Your task to perform on an android device: Clear the shopping cart on newegg. Add lg ultragear to the cart on newegg Image 0: 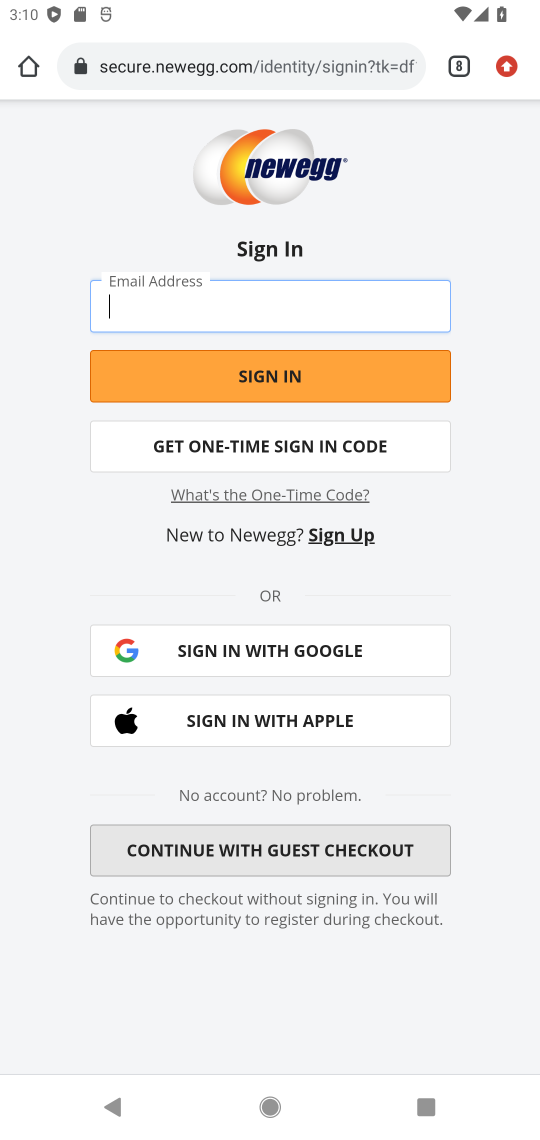
Step 0: click (461, 71)
Your task to perform on an android device: Clear the shopping cart on newegg. Add lg ultragear to the cart on newegg Image 1: 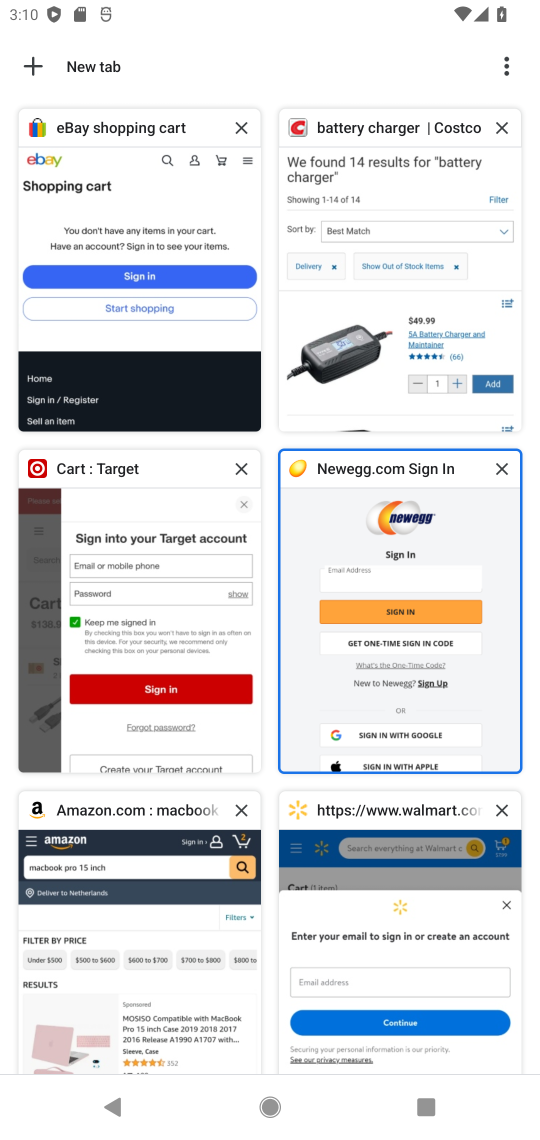
Step 1: click (346, 606)
Your task to perform on an android device: Clear the shopping cart on newegg. Add lg ultragear to the cart on newegg Image 2: 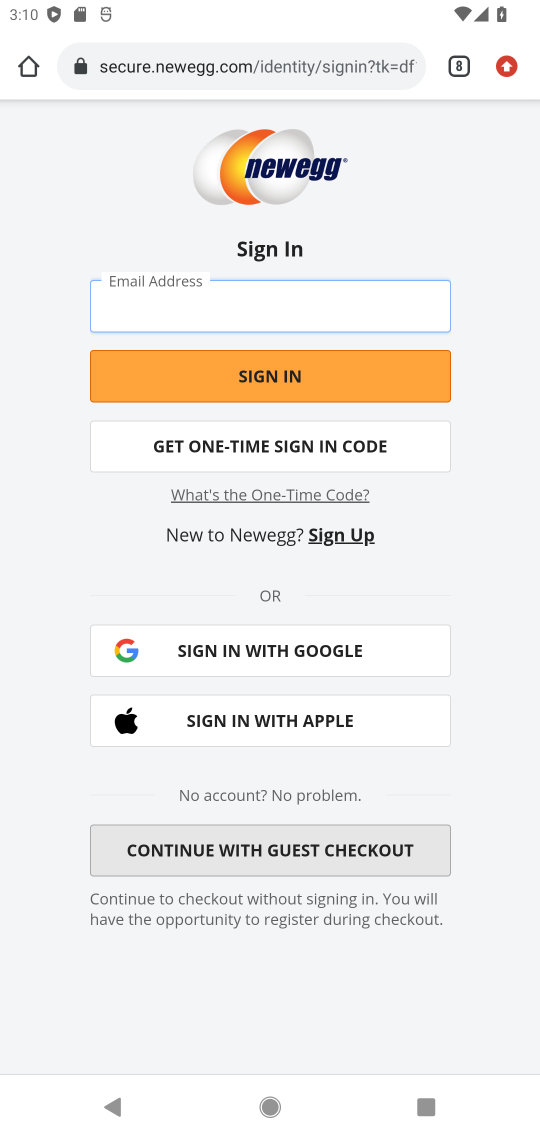
Step 2: press back button
Your task to perform on an android device: Clear the shopping cart on newegg. Add lg ultragear to the cart on newegg Image 3: 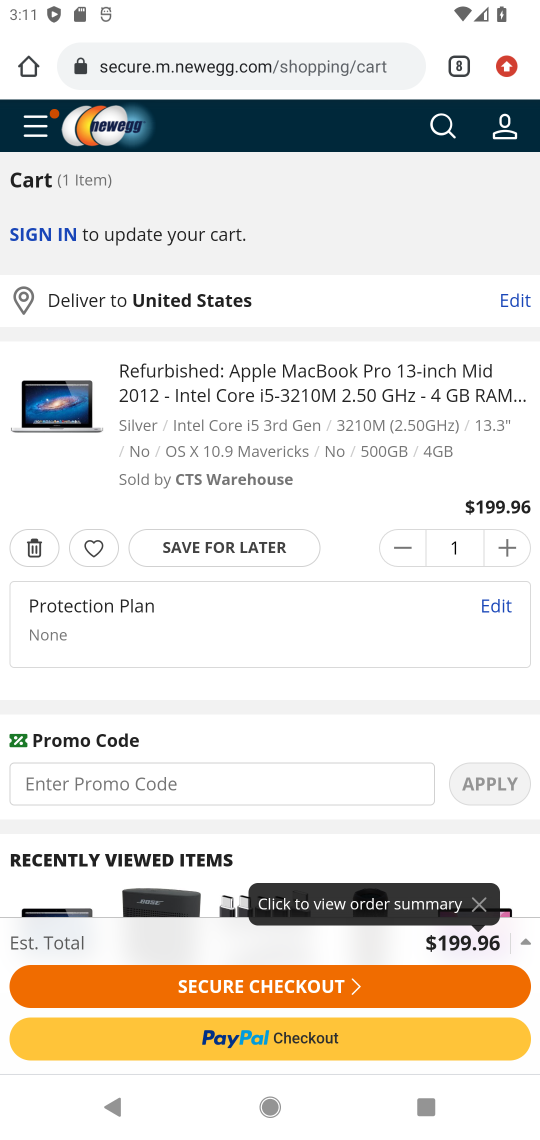
Step 3: click (32, 545)
Your task to perform on an android device: Clear the shopping cart on newegg. Add lg ultragear to the cart on newegg Image 4: 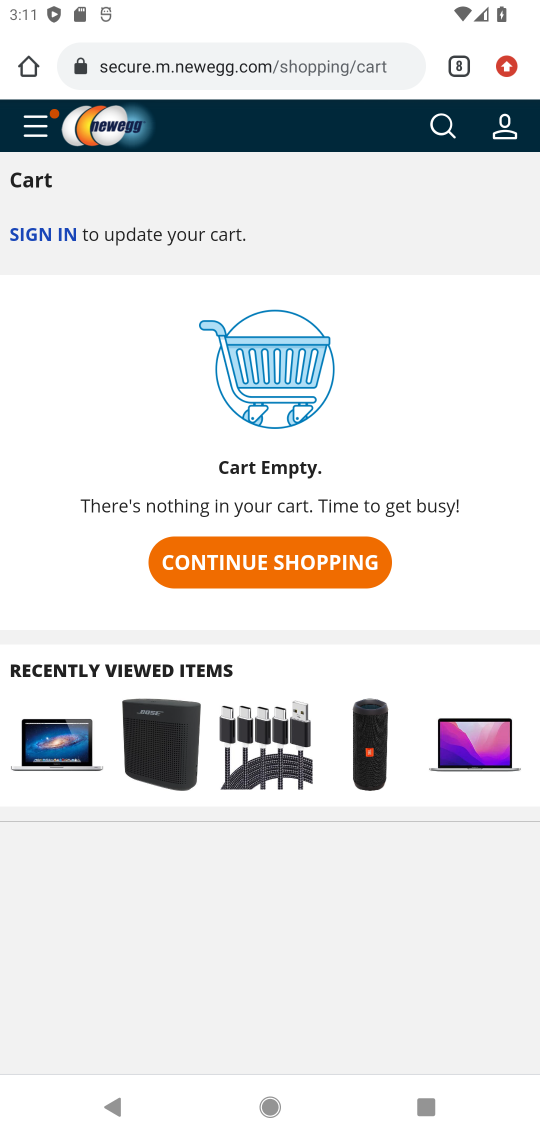
Step 4: click (438, 128)
Your task to perform on an android device: Clear the shopping cart on newegg. Add lg ultragear to the cart on newegg Image 5: 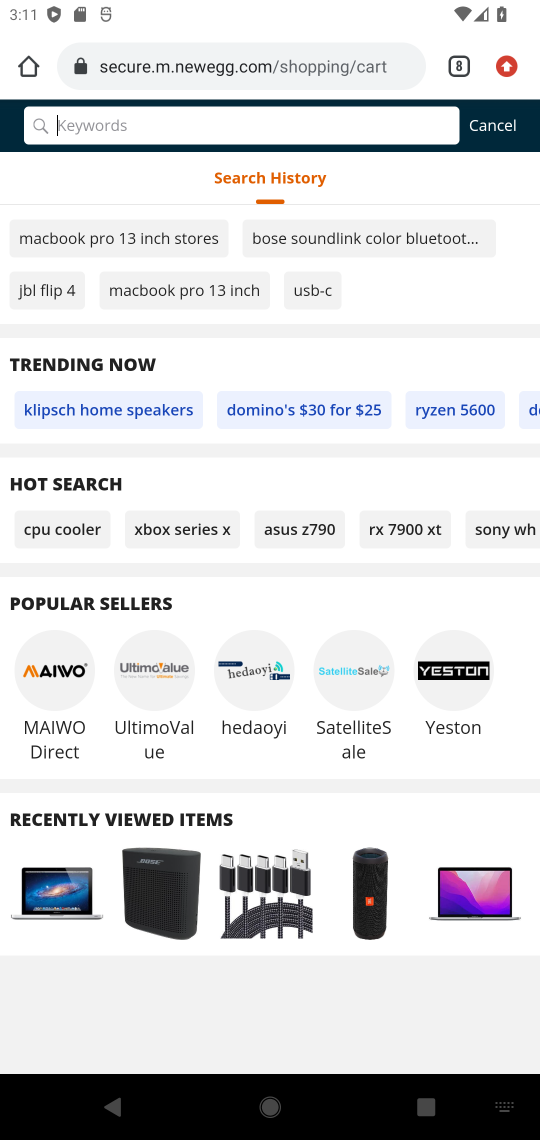
Step 5: type " lg ultragea"
Your task to perform on an android device: Clear the shopping cart on newegg. Add lg ultragear to the cart on newegg Image 6: 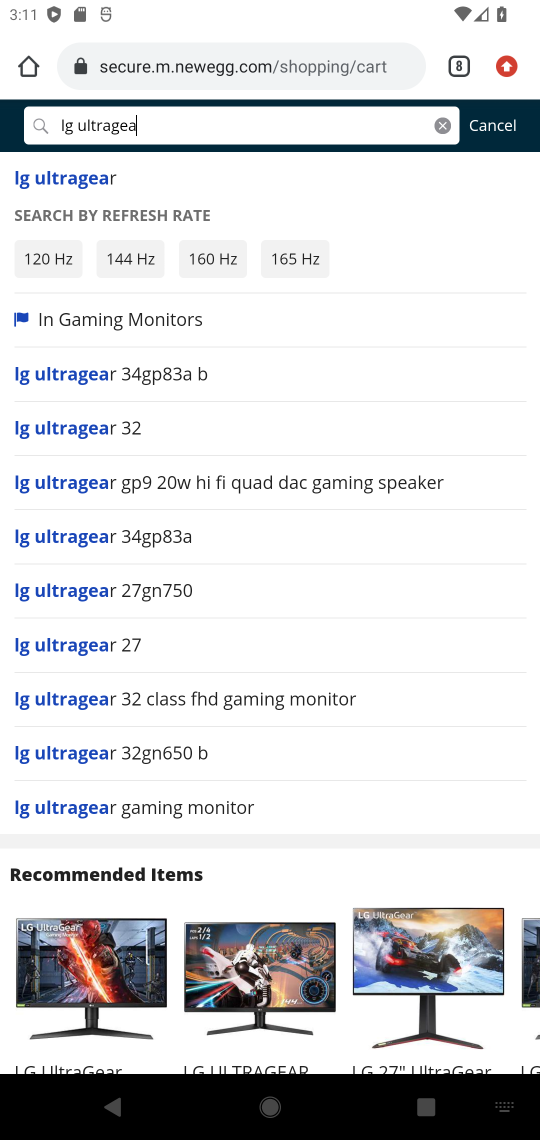
Step 6: click (34, 179)
Your task to perform on an android device: Clear the shopping cart on newegg. Add lg ultragear to the cart on newegg Image 7: 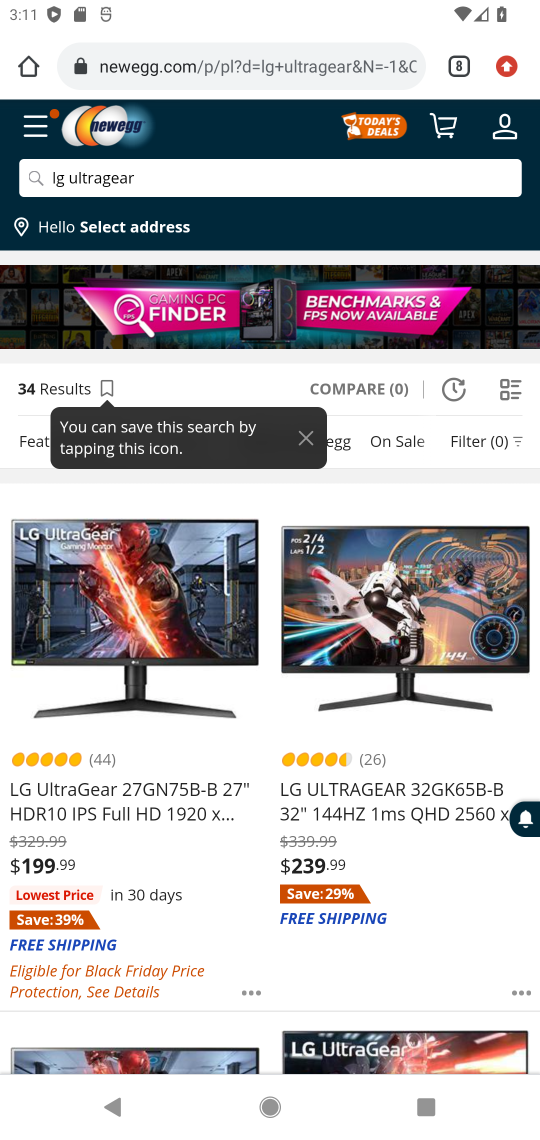
Step 7: click (93, 801)
Your task to perform on an android device: Clear the shopping cart on newegg. Add lg ultragear to the cart on newegg Image 8: 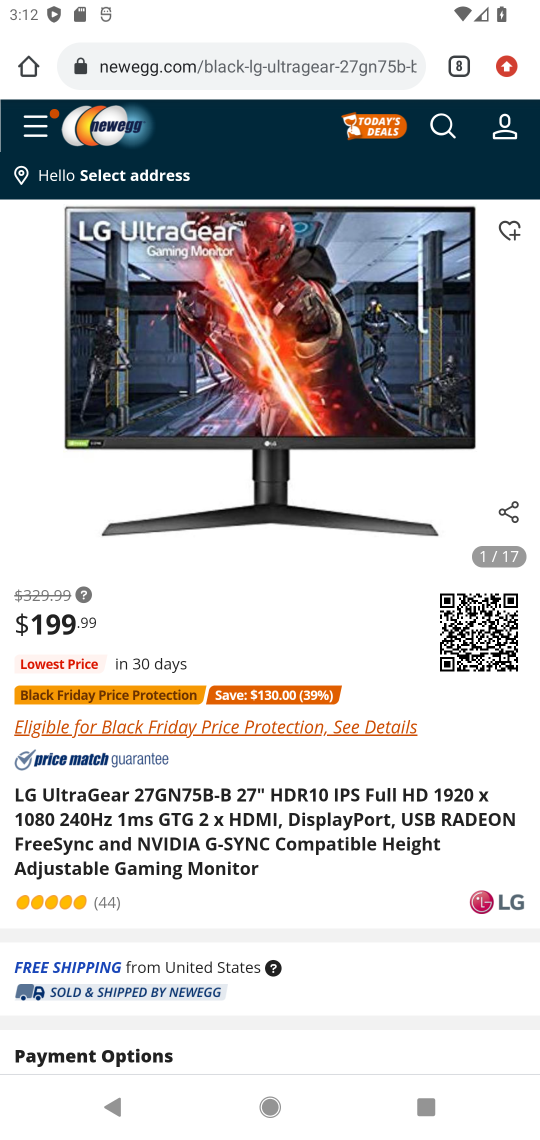
Step 8: click (229, 1039)
Your task to perform on an android device: Clear the shopping cart on newegg. Add lg ultragear to the cart on newegg Image 9: 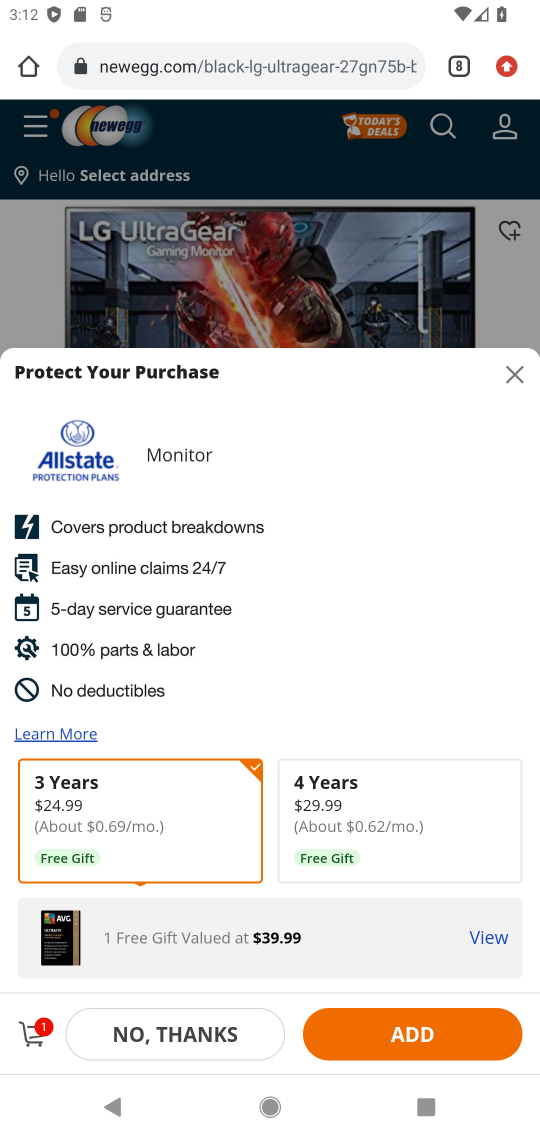
Step 9: task complete